Your task to perform on an android device: Open Maps and search for coffee Image 0: 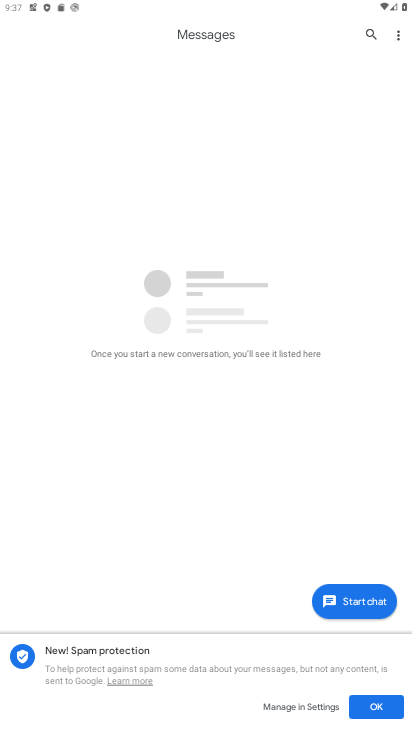
Step 0: press home button
Your task to perform on an android device: Open Maps and search for coffee Image 1: 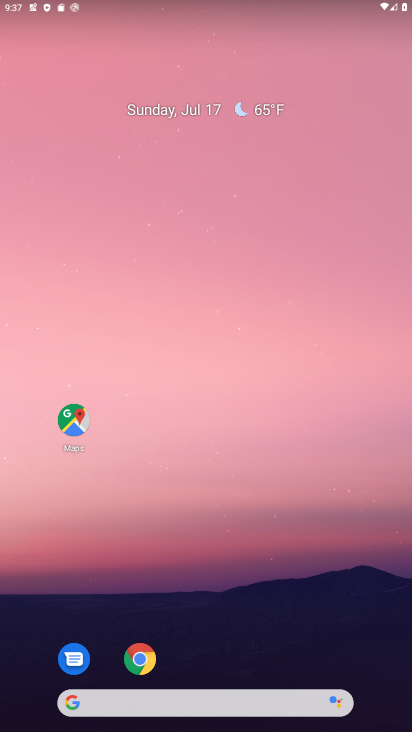
Step 1: drag from (183, 673) to (212, 211)
Your task to perform on an android device: Open Maps and search for coffee Image 2: 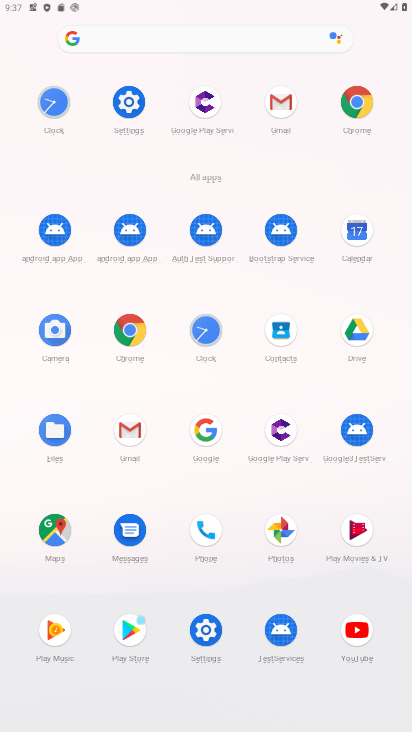
Step 2: click (50, 531)
Your task to perform on an android device: Open Maps and search for coffee Image 3: 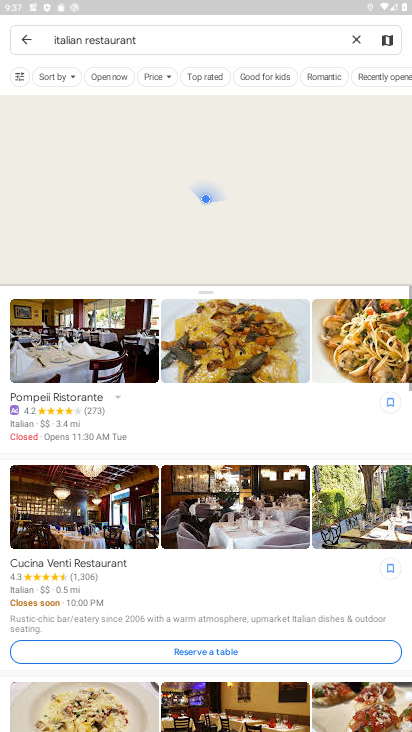
Step 3: click (356, 40)
Your task to perform on an android device: Open Maps and search for coffee Image 4: 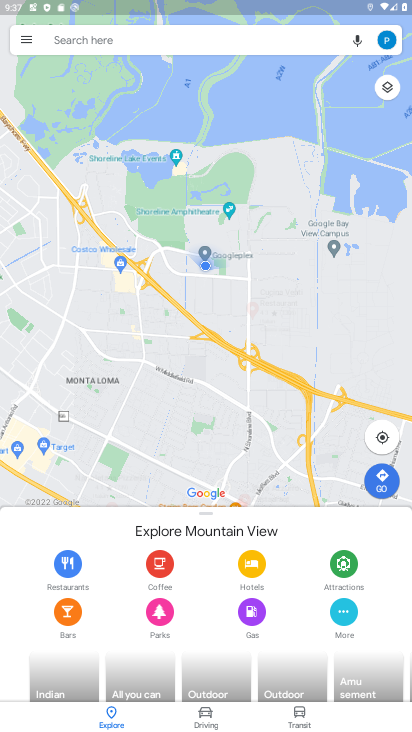
Step 4: click (92, 40)
Your task to perform on an android device: Open Maps and search for coffee Image 5: 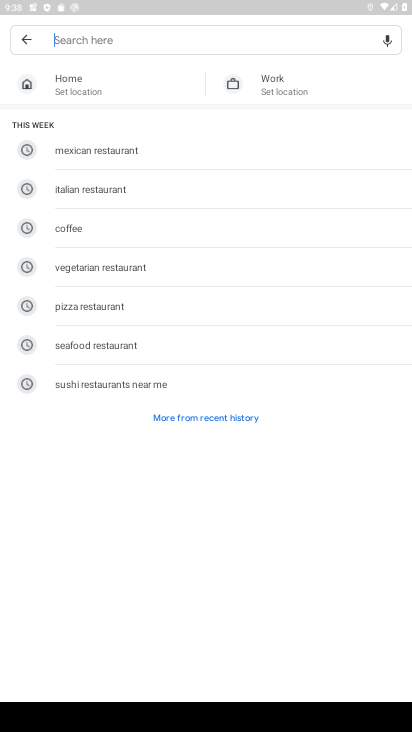
Step 5: click (102, 226)
Your task to perform on an android device: Open Maps and search for coffee Image 6: 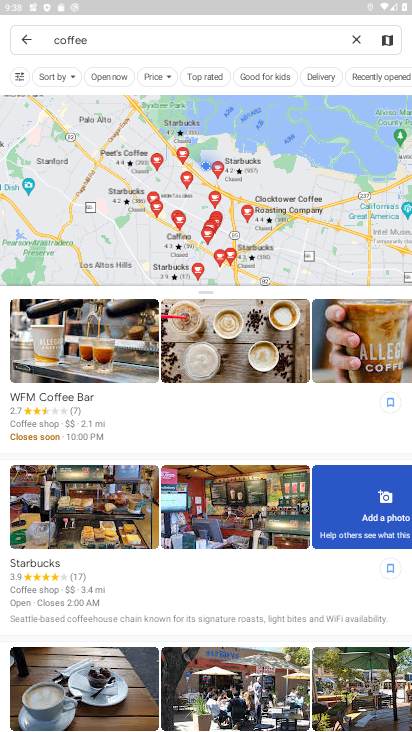
Step 6: task complete